Your task to perform on an android device: star an email in the gmail app Image 0: 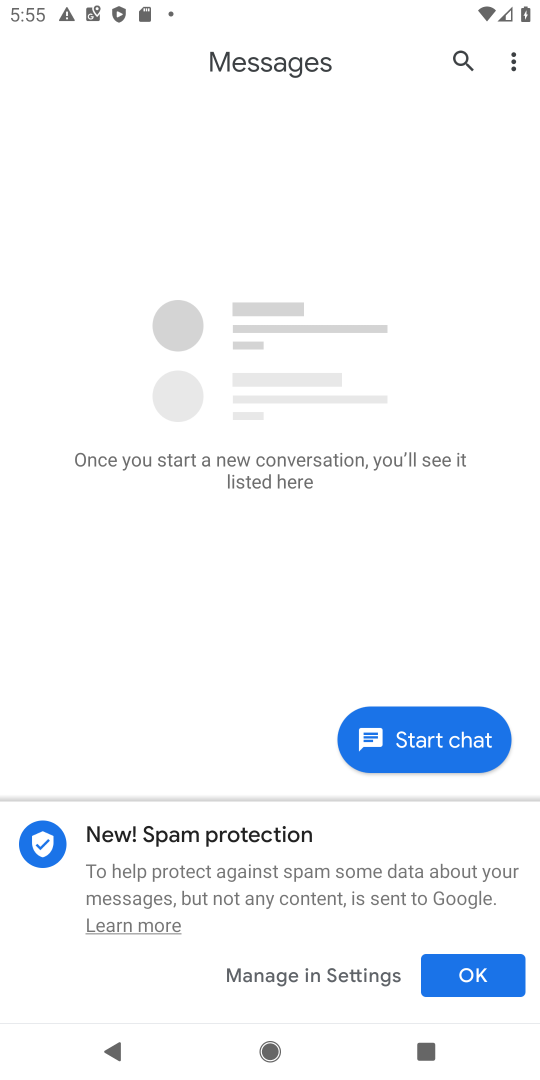
Step 0: press home button
Your task to perform on an android device: star an email in the gmail app Image 1: 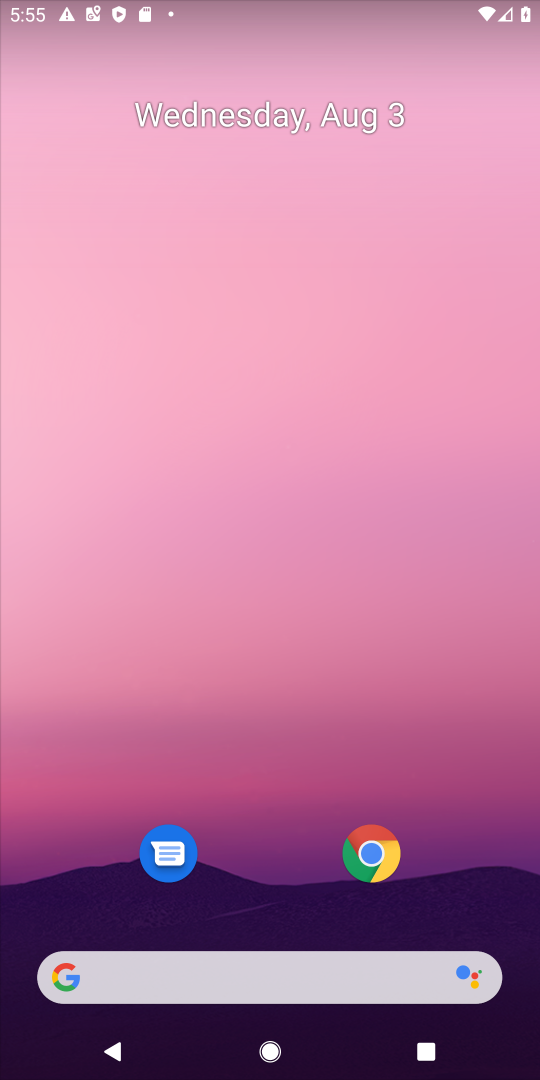
Step 1: drag from (496, 789) to (411, 131)
Your task to perform on an android device: star an email in the gmail app Image 2: 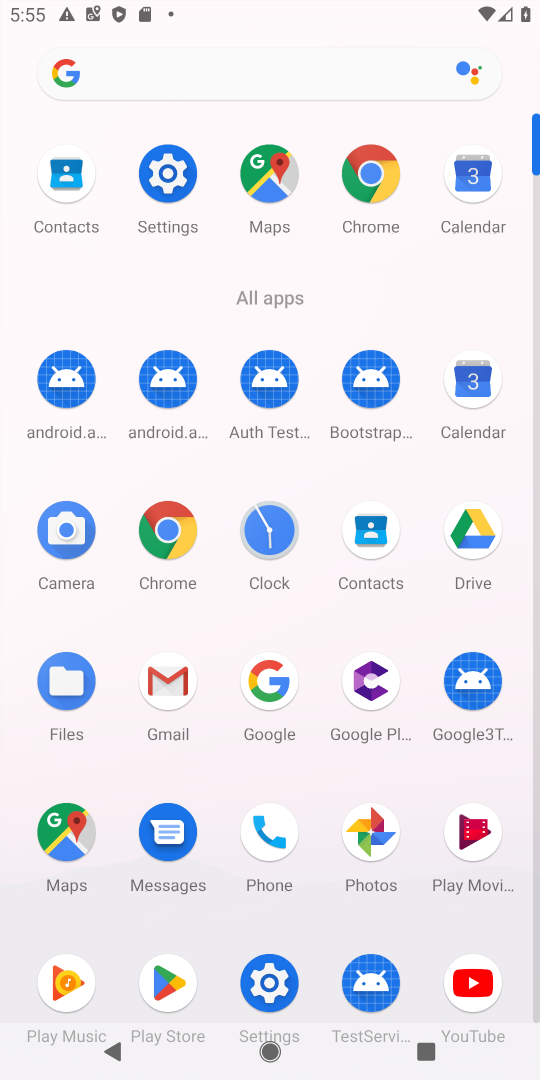
Step 2: click (161, 685)
Your task to perform on an android device: star an email in the gmail app Image 3: 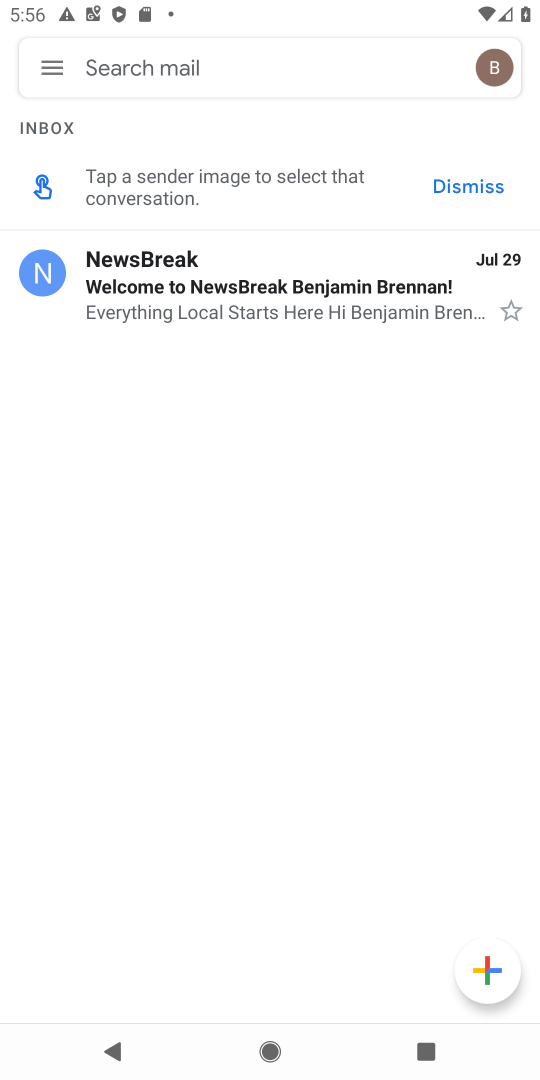
Step 3: click (508, 313)
Your task to perform on an android device: star an email in the gmail app Image 4: 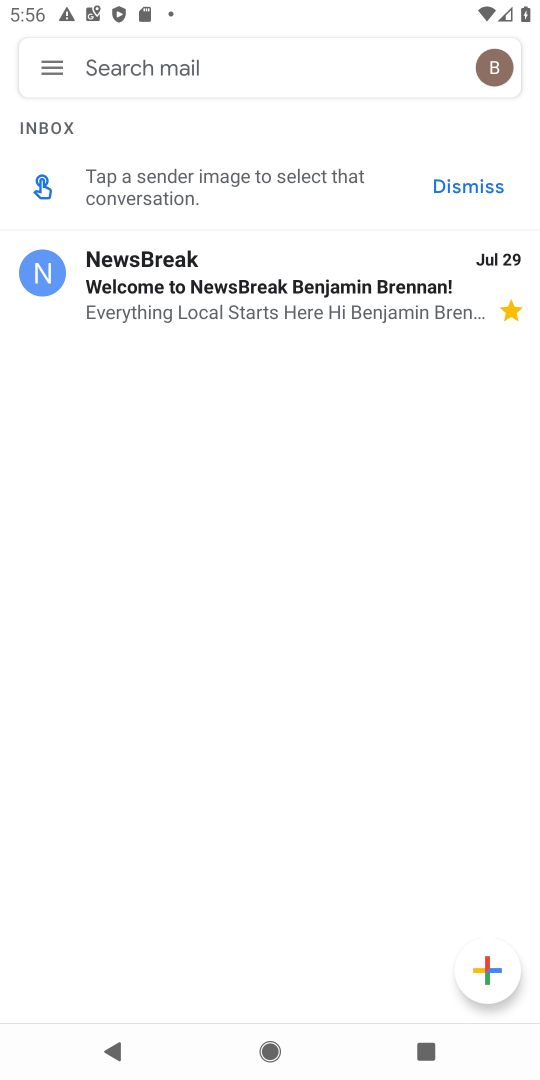
Step 4: task complete